Your task to perform on an android device: allow cookies in the chrome app Image 0: 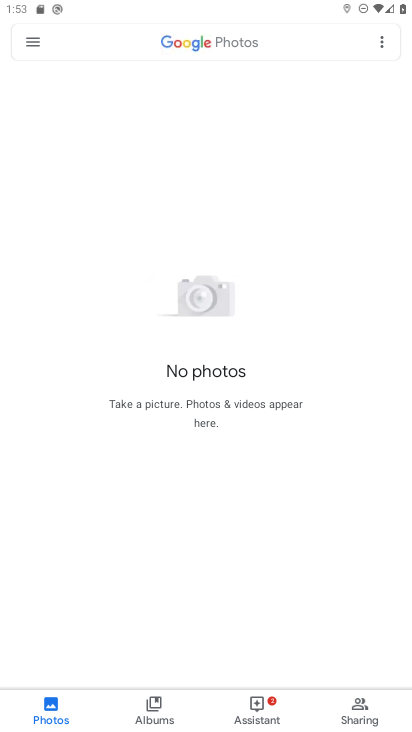
Step 0: press home button
Your task to perform on an android device: allow cookies in the chrome app Image 1: 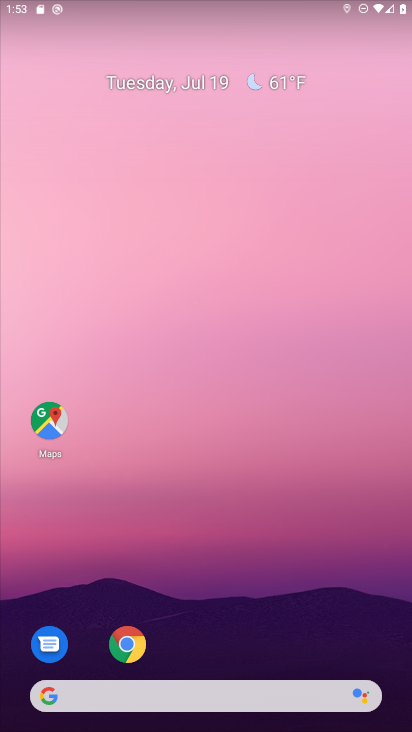
Step 1: drag from (201, 667) to (192, 82)
Your task to perform on an android device: allow cookies in the chrome app Image 2: 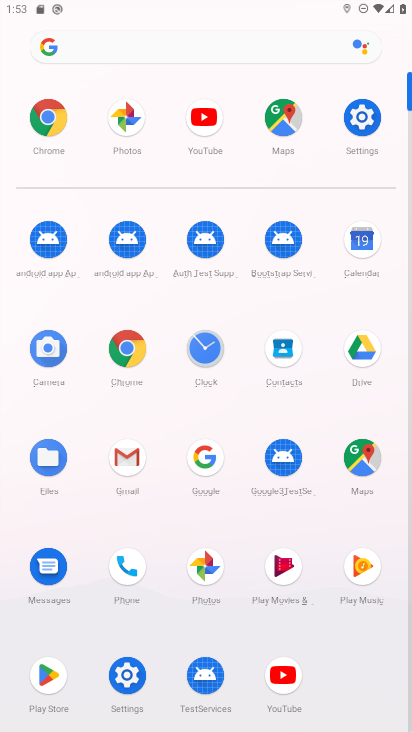
Step 2: click (132, 351)
Your task to perform on an android device: allow cookies in the chrome app Image 3: 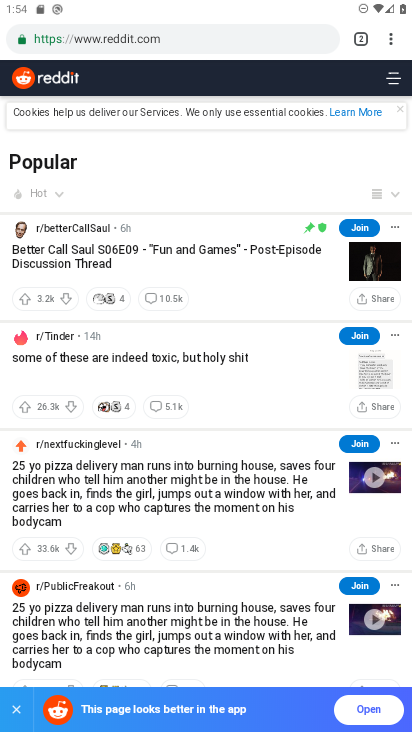
Step 3: click (392, 33)
Your task to perform on an android device: allow cookies in the chrome app Image 4: 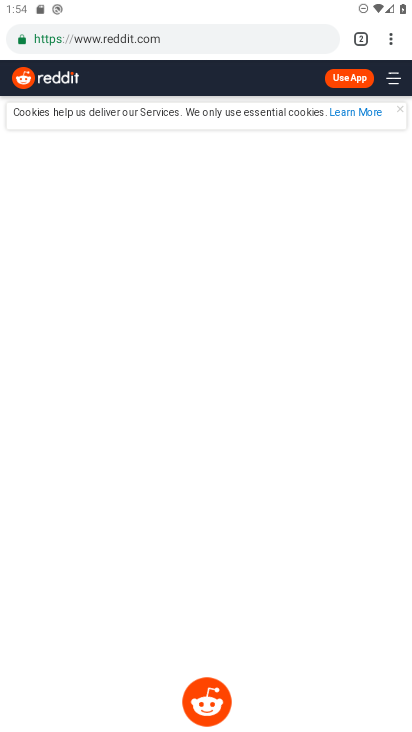
Step 4: drag from (392, 36) to (248, 468)
Your task to perform on an android device: allow cookies in the chrome app Image 5: 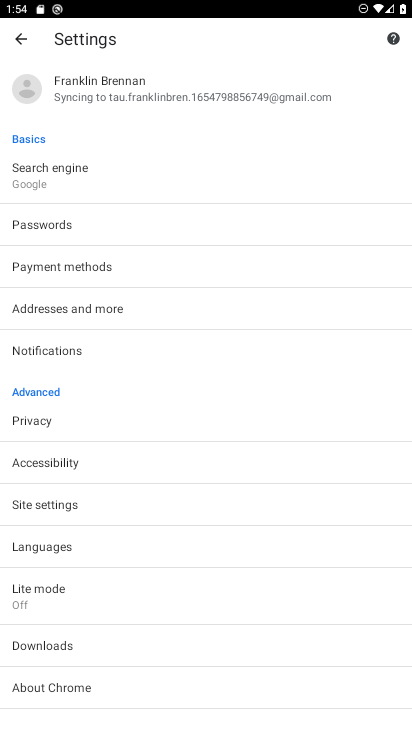
Step 5: click (48, 512)
Your task to perform on an android device: allow cookies in the chrome app Image 6: 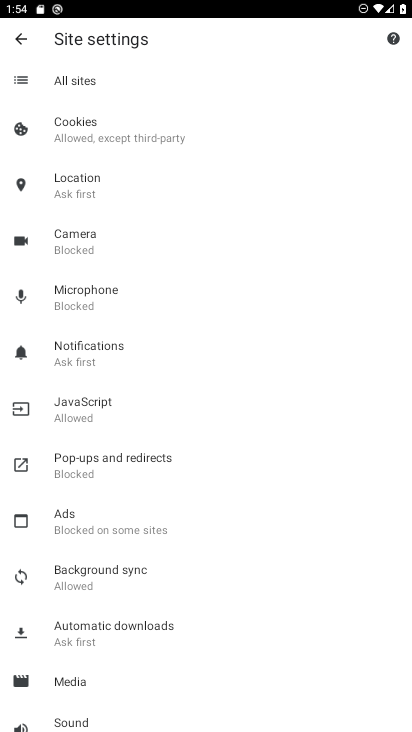
Step 6: click (67, 139)
Your task to perform on an android device: allow cookies in the chrome app Image 7: 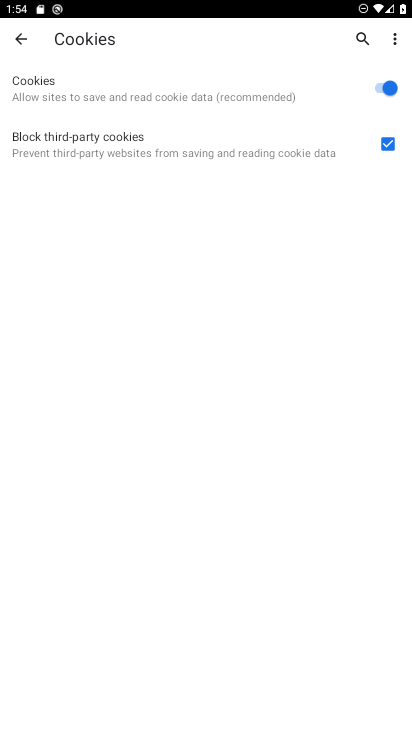
Step 7: task complete